Your task to perform on an android device: check data usage Image 0: 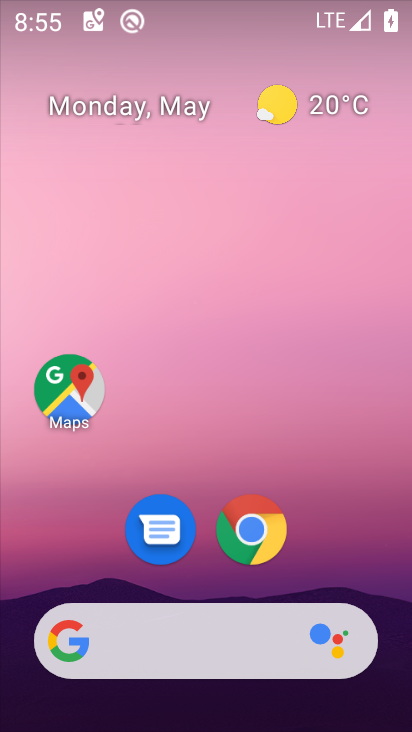
Step 0: task impossible